Your task to perform on an android device: Go to Yahoo.com Image 0: 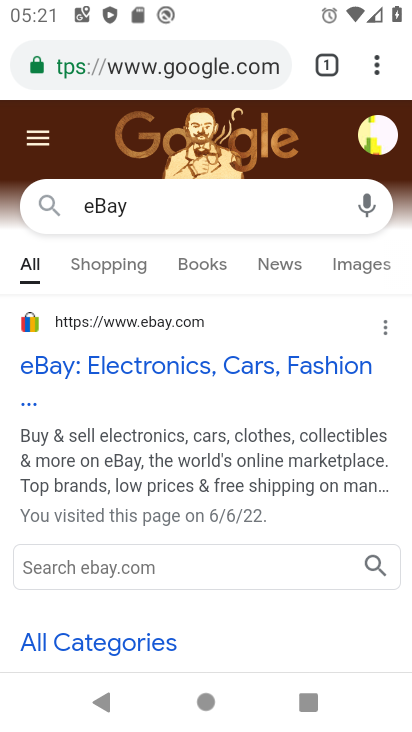
Step 0: click (277, 60)
Your task to perform on an android device: Go to Yahoo.com Image 1: 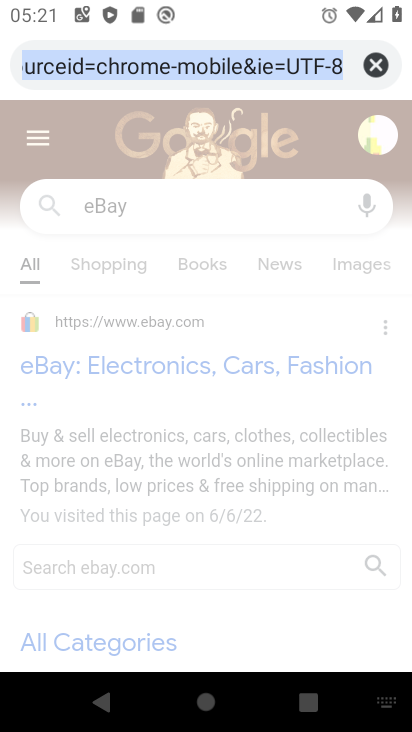
Step 1: click (375, 72)
Your task to perform on an android device: Go to Yahoo.com Image 2: 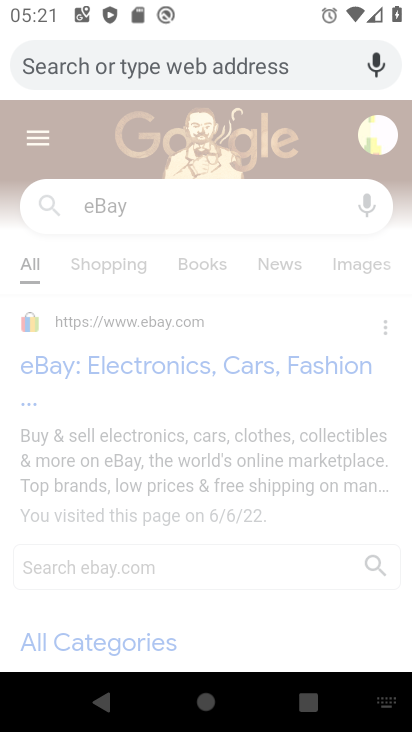
Step 2: type "eBay"
Your task to perform on an android device: Go to Yahoo.com Image 3: 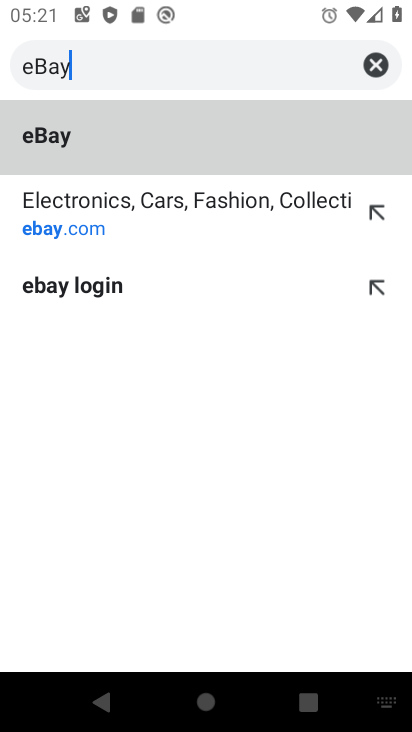
Step 3: click (373, 57)
Your task to perform on an android device: Go to Yahoo.com Image 4: 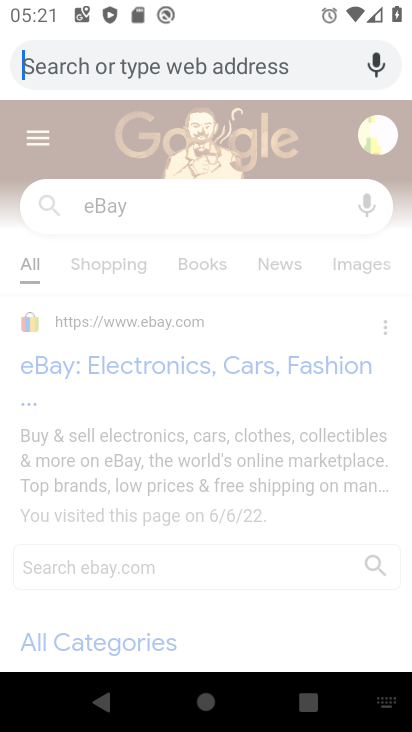
Step 4: type "Yahoo.com"
Your task to perform on an android device: Go to Yahoo.com Image 5: 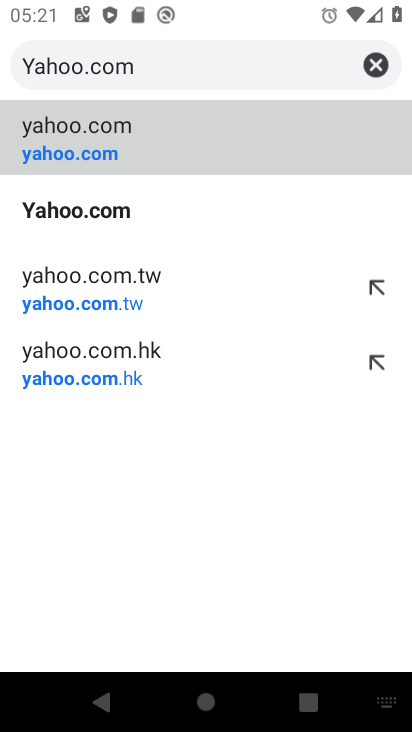
Step 5: click (66, 206)
Your task to perform on an android device: Go to Yahoo.com Image 6: 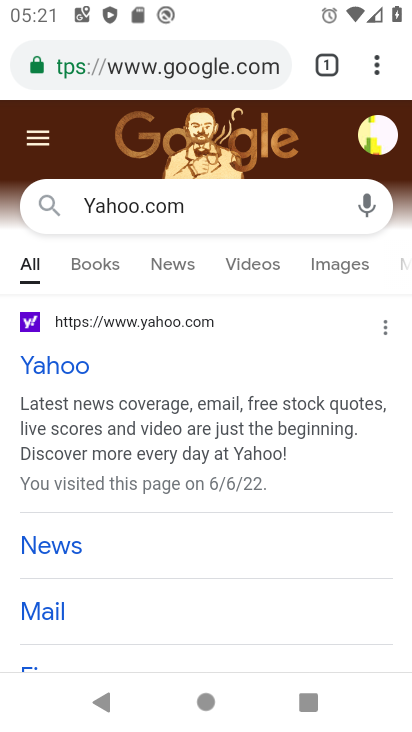
Step 6: task complete